Your task to perform on an android device: Open accessibility settings Image 0: 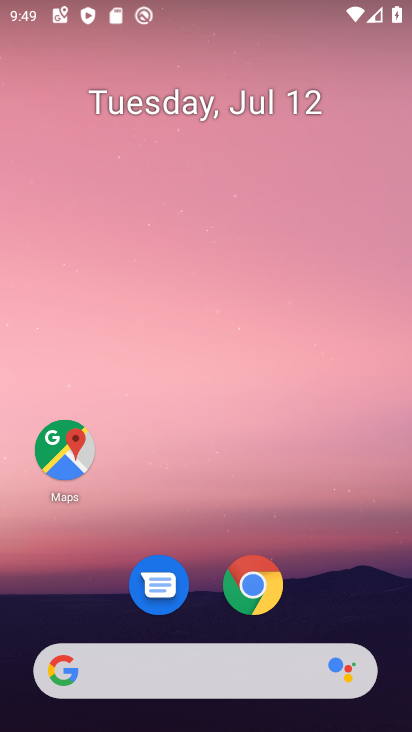
Step 0: press home button
Your task to perform on an android device: Open accessibility settings Image 1: 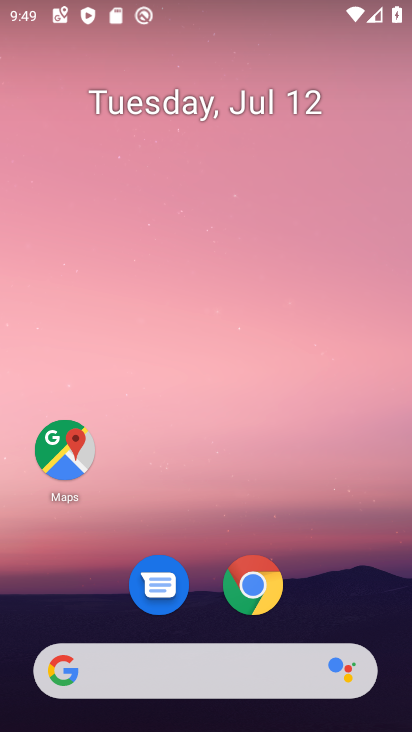
Step 1: drag from (162, 673) to (253, 38)
Your task to perform on an android device: Open accessibility settings Image 2: 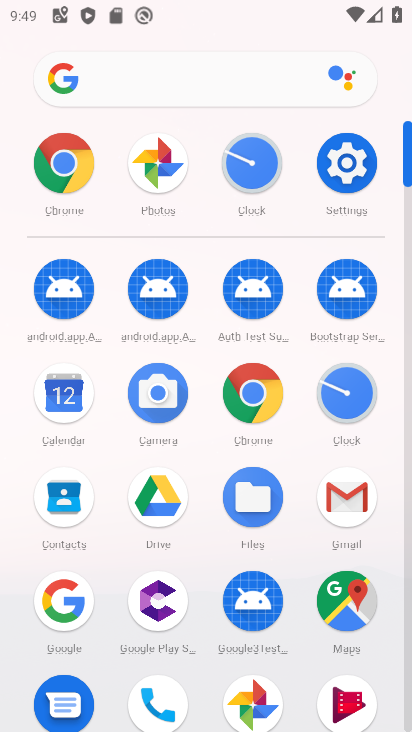
Step 2: click (345, 166)
Your task to perform on an android device: Open accessibility settings Image 3: 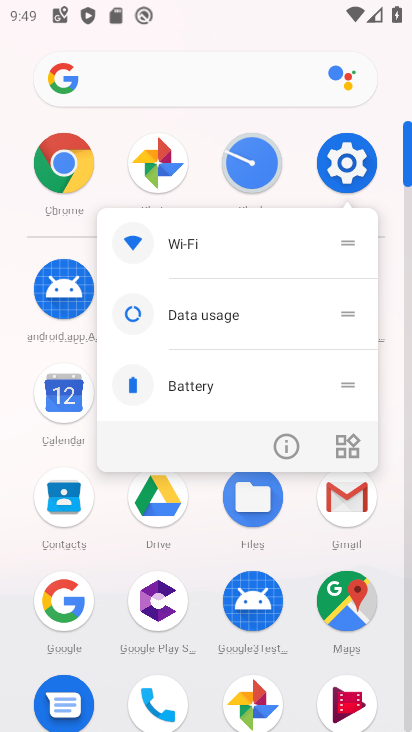
Step 3: click (347, 164)
Your task to perform on an android device: Open accessibility settings Image 4: 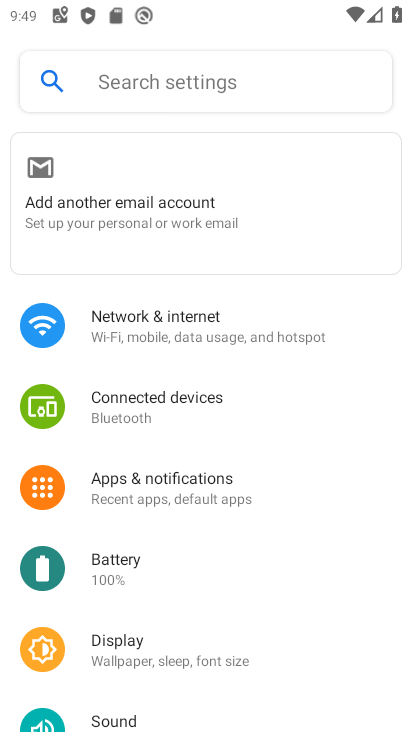
Step 4: drag from (300, 667) to (332, 188)
Your task to perform on an android device: Open accessibility settings Image 5: 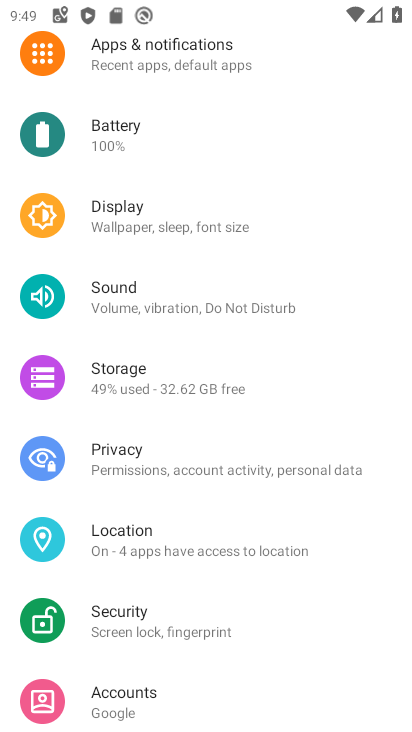
Step 5: drag from (278, 659) to (377, 176)
Your task to perform on an android device: Open accessibility settings Image 6: 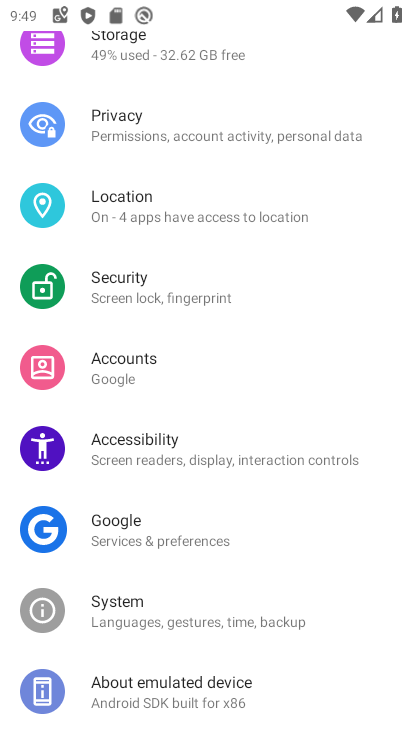
Step 6: click (171, 462)
Your task to perform on an android device: Open accessibility settings Image 7: 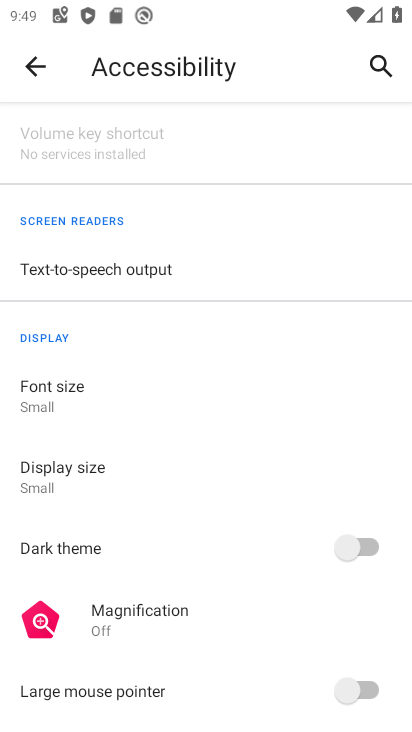
Step 7: task complete